Your task to perform on an android device: What is the speed of a skateboard? Image 0: 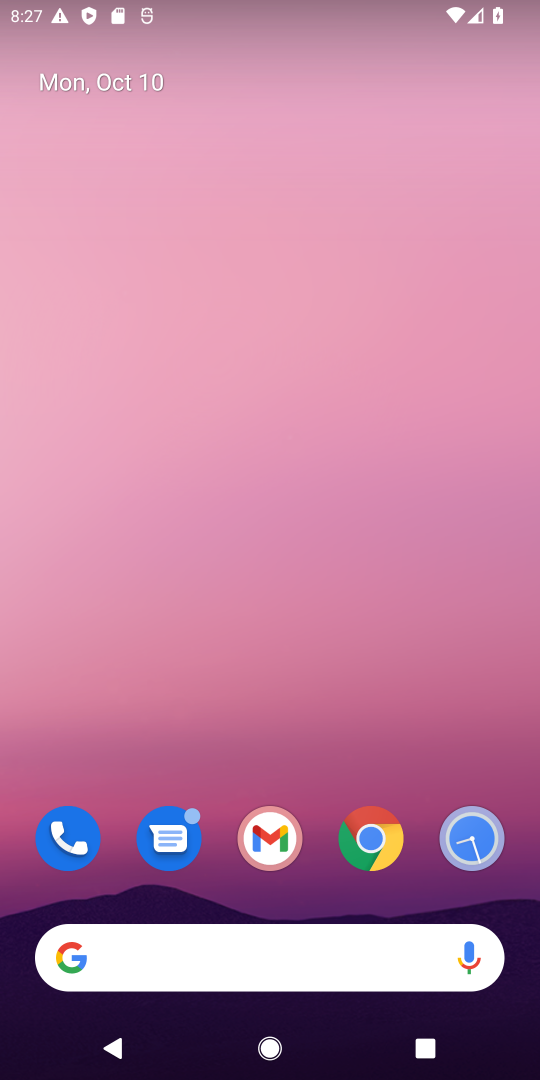
Step 0: drag from (317, 904) to (313, 114)
Your task to perform on an android device: What is the speed of a skateboard? Image 1: 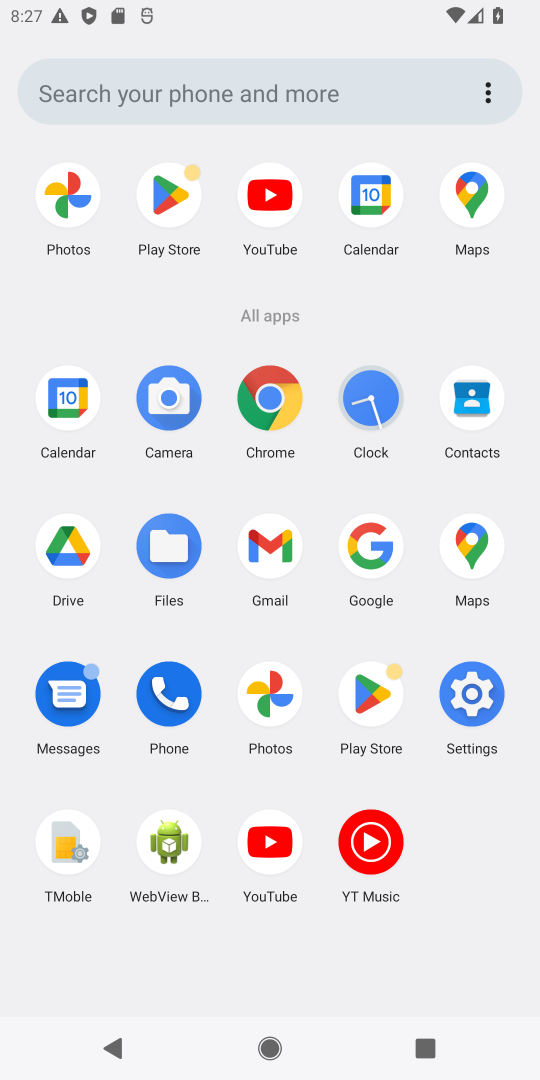
Step 1: click (379, 542)
Your task to perform on an android device: What is the speed of a skateboard? Image 2: 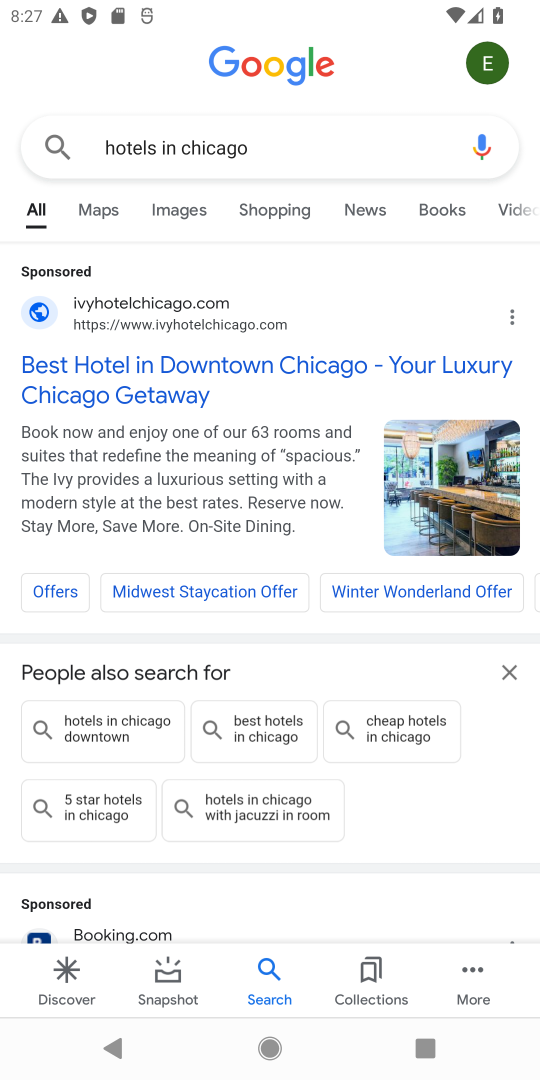
Step 2: click (290, 140)
Your task to perform on an android device: What is the speed of a skateboard? Image 3: 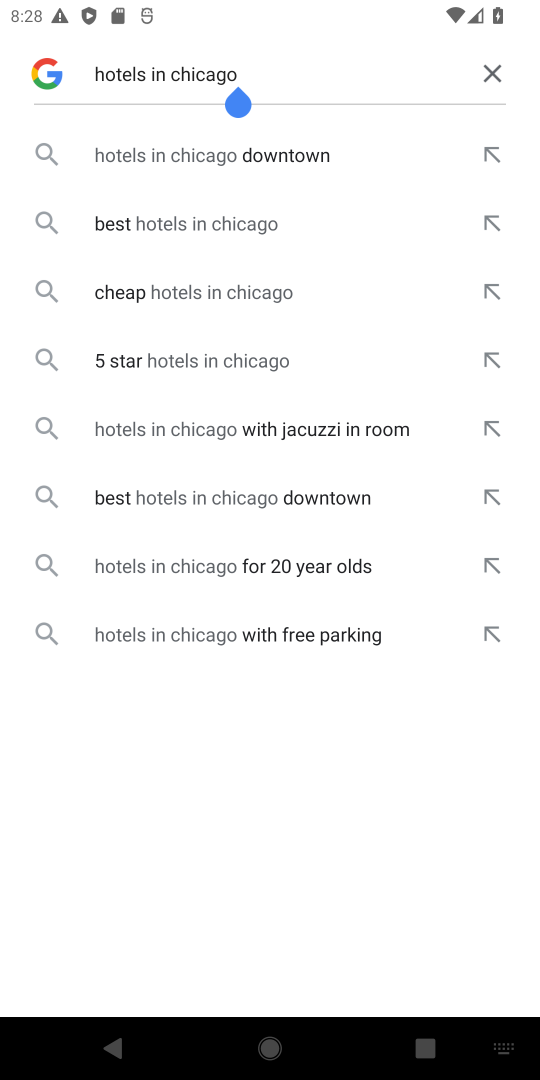
Step 3: click (480, 67)
Your task to perform on an android device: What is the speed of a skateboard? Image 4: 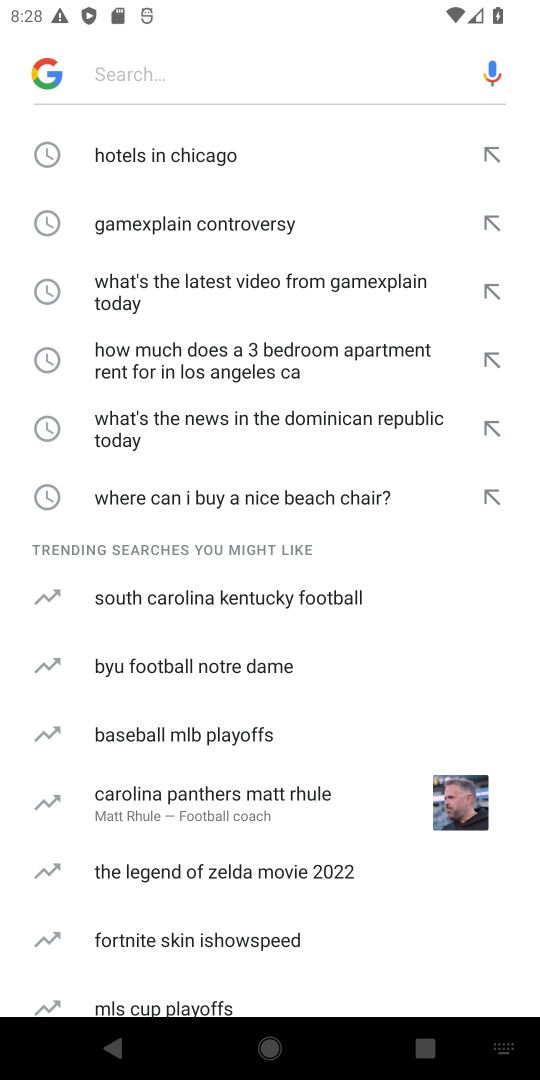
Step 4: type "What is the speed of a skateboard?"
Your task to perform on an android device: What is the speed of a skateboard? Image 5: 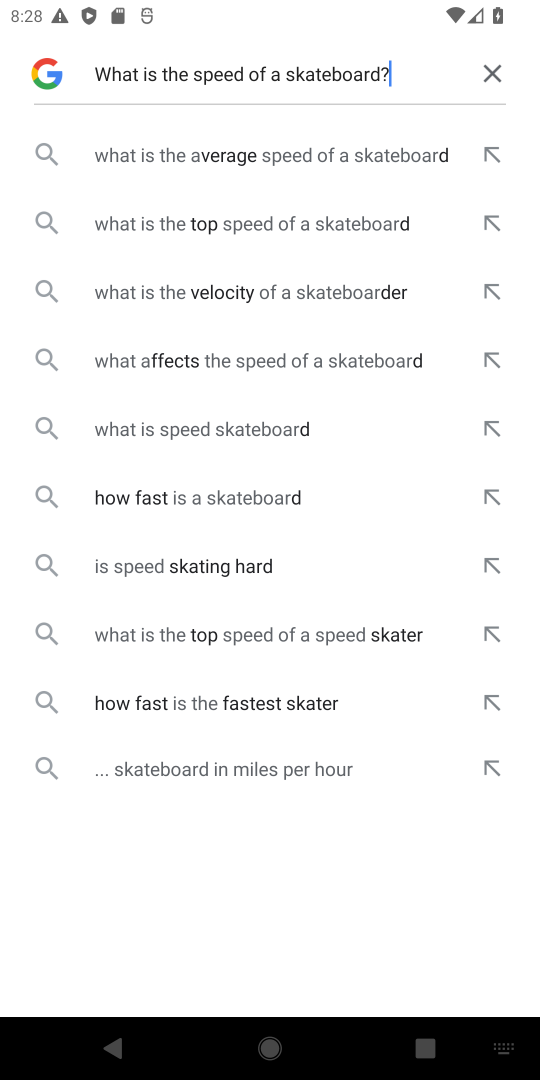
Step 5: type ""
Your task to perform on an android device: What is the speed of a skateboard? Image 6: 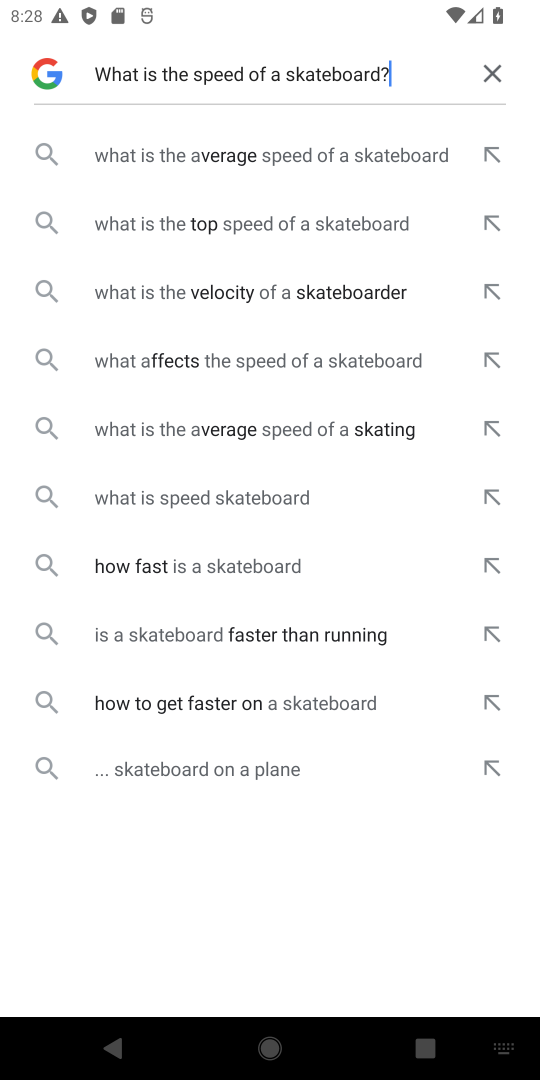
Step 6: click (300, 153)
Your task to perform on an android device: What is the speed of a skateboard? Image 7: 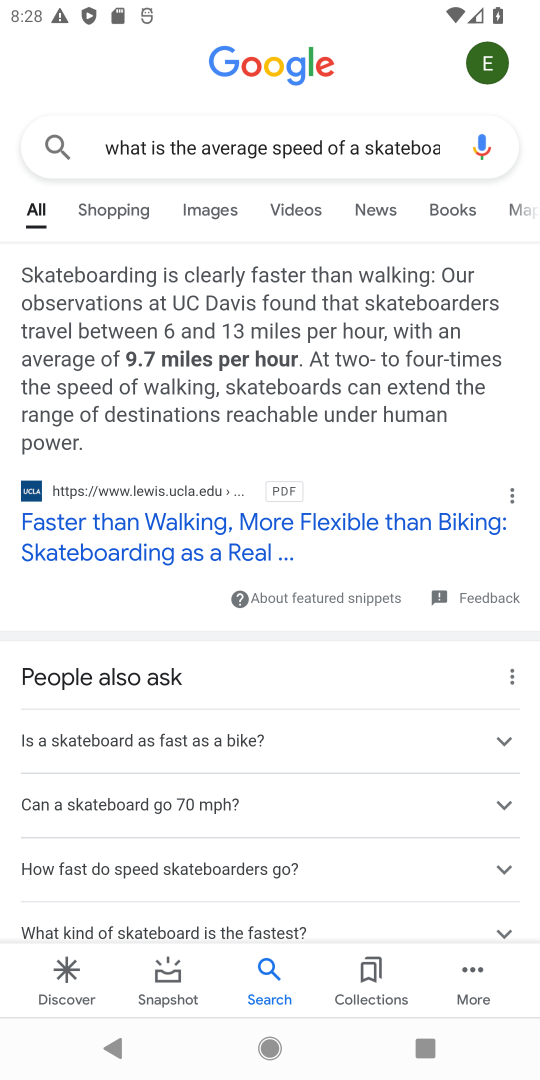
Step 7: task complete